Your task to perform on an android device: toggle pop-ups in chrome Image 0: 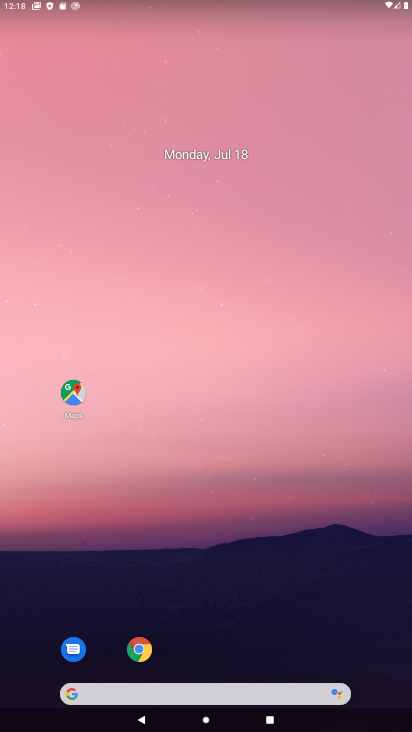
Step 0: click (139, 647)
Your task to perform on an android device: toggle pop-ups in chrome Image 1: 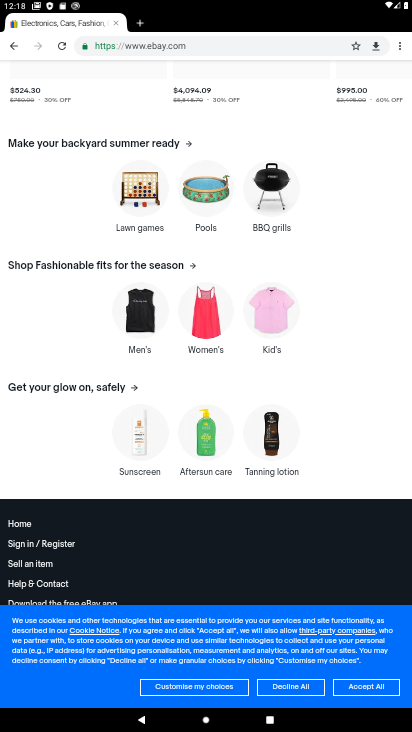
Step 1: click (400, 47)
Your task to perform on an android device: toggle pop-ups in chrome Image 2: 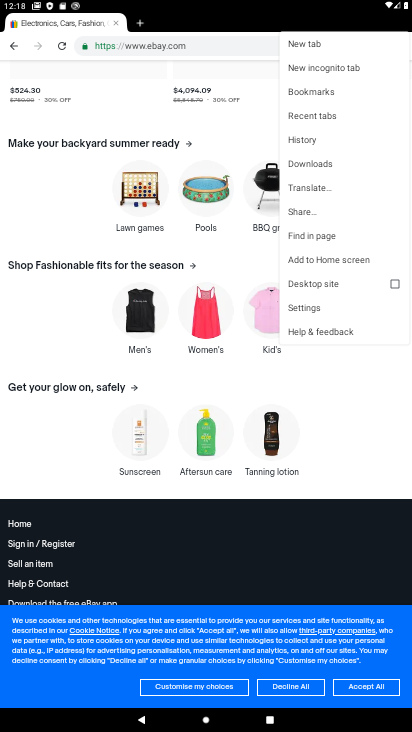
Step 2: click (308, 307)
Your task to perform on an android device: toggle pop-ups in chrome Image 3: 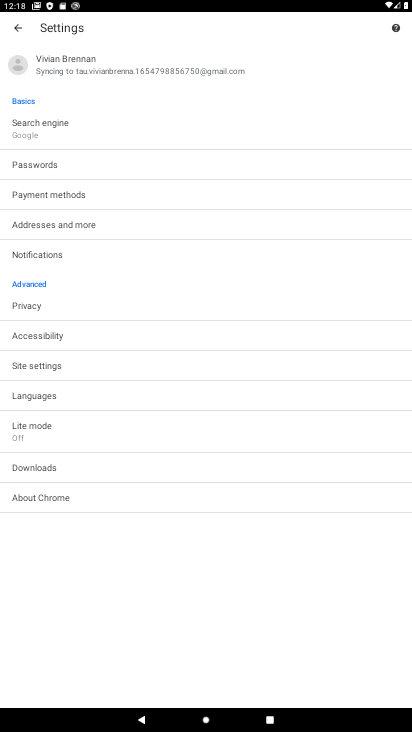
Step 3: click (41, 367)
Your task to perform on an android device: toggle pop-ups in chrome Image 4: 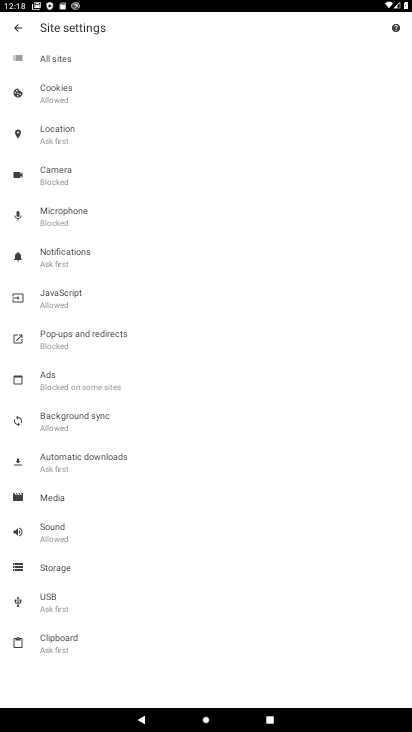
Step 4: click (59, 336)
Your task to perform on an android device: toggle pop-ups in chrome Image 5: 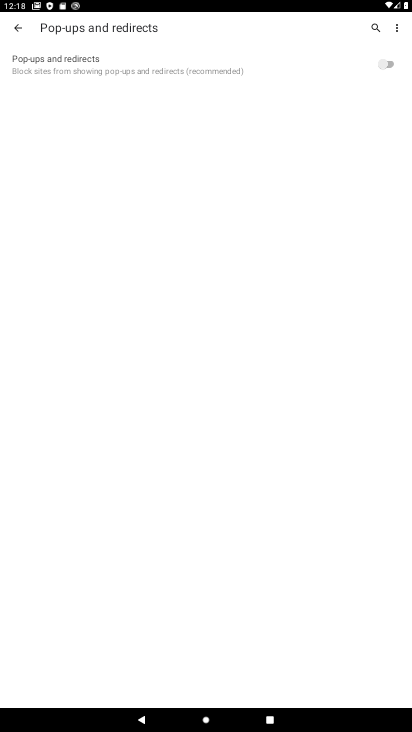
Step 5: click (392, 63)
Your task to perform on an android device: toggle pop-ups in chrome Image 6: 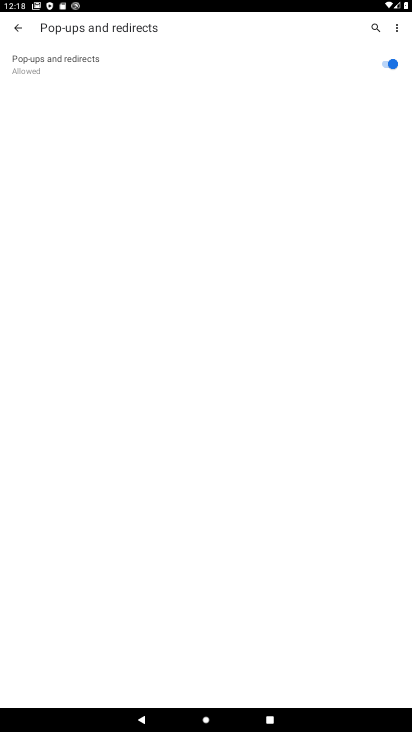
Step 6: task complete